Your task to perform on an android device: turn off notifications settings in the gmail app Image 0: 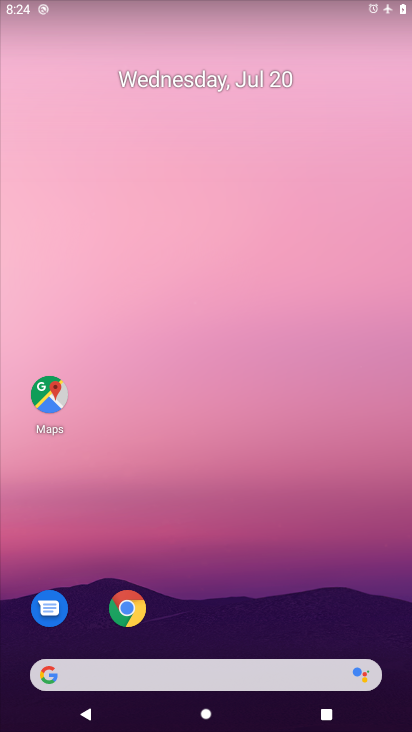
Step 0: drag from (198, 621) to (261, 117)
Your task to perform on an android device: turn off notifications settings in the gmail app Image 1: 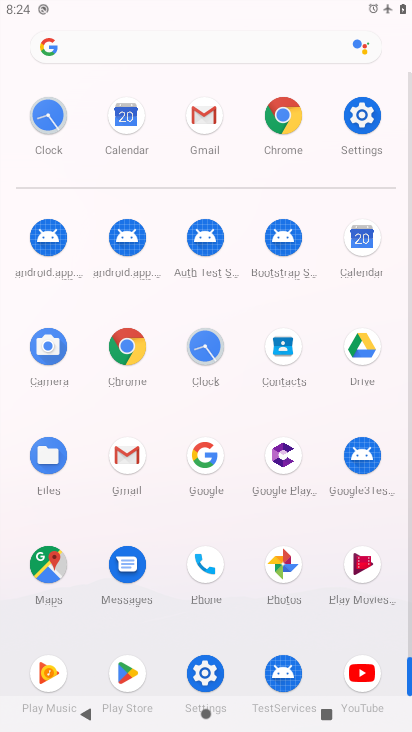
Step 1: click (135, 471)
Your task to perform on an android device: turn off notifications settings in the gmail app Image 2: 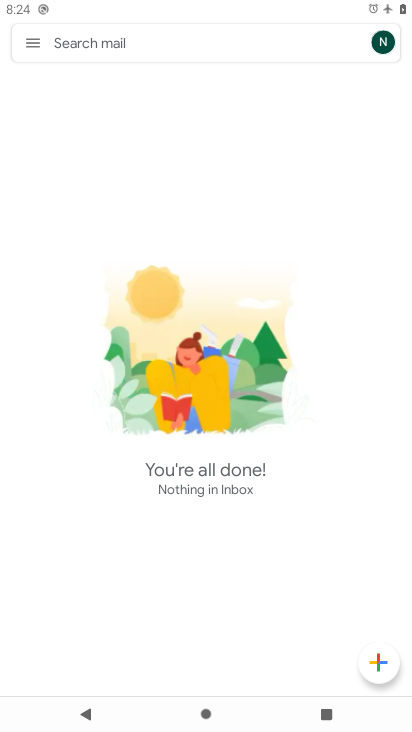
Step 2: click (24, 44)
Your task to perform on an android device: turn off notifications settings in the gmail app Image 3: 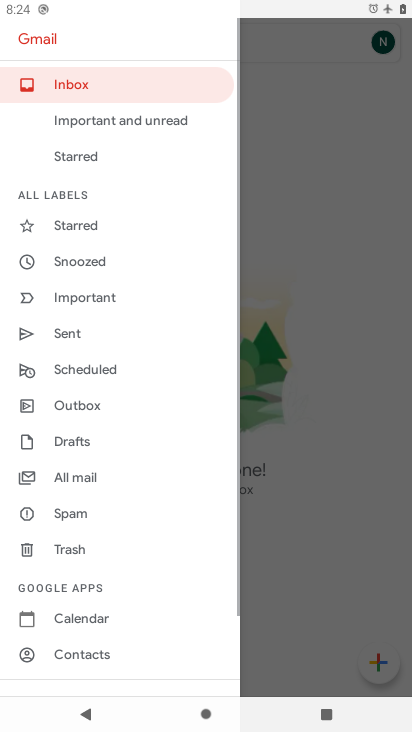
Step 3: drag from (96, 639) to (107, 214)
Your task to perform on an android device: turn off notifications settings in the gmail app Image 4: 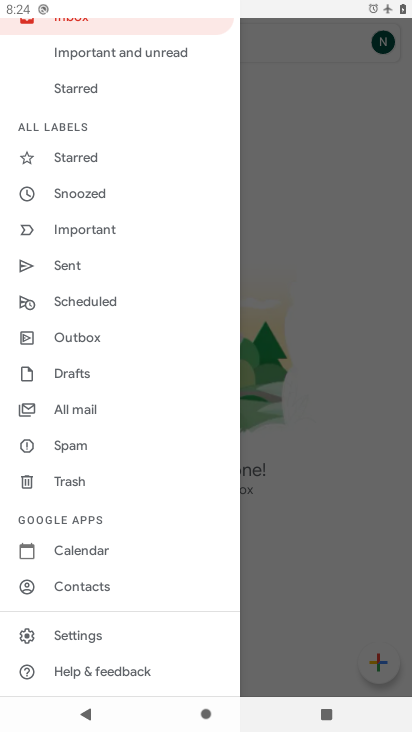
Step 4: click (77, 640)
Your task to perform on an android device: turn off notifications settings in the gmail app Image 5: 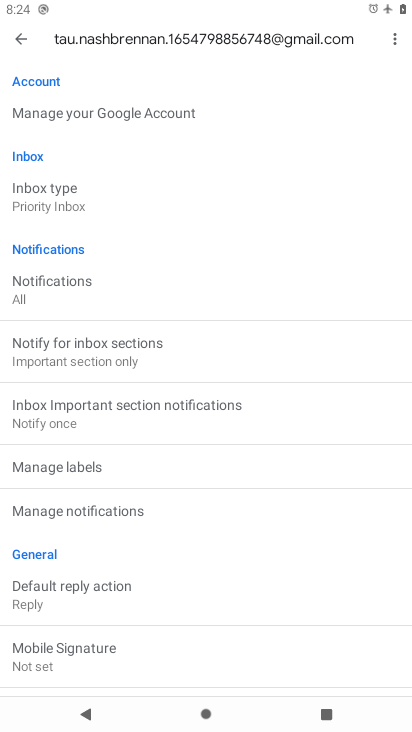
Step 5: click (22, 41)
Your task to perform on an android device: turn off notifications settings in the gmail app Image 6: 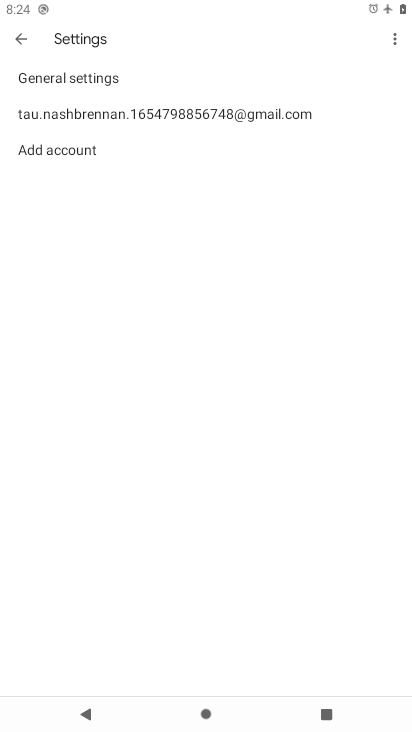
Step 6: click (87, 86)
Your task to perform on an android device: turn off notifications settings in the gmail app Image 7: 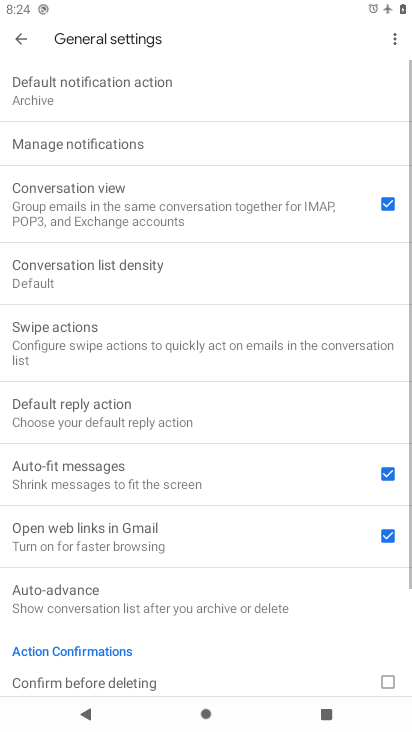
Step 7: click (123, 153)
Your task to perform on an android device: turn off notifications settings in the gmail app Image 8: 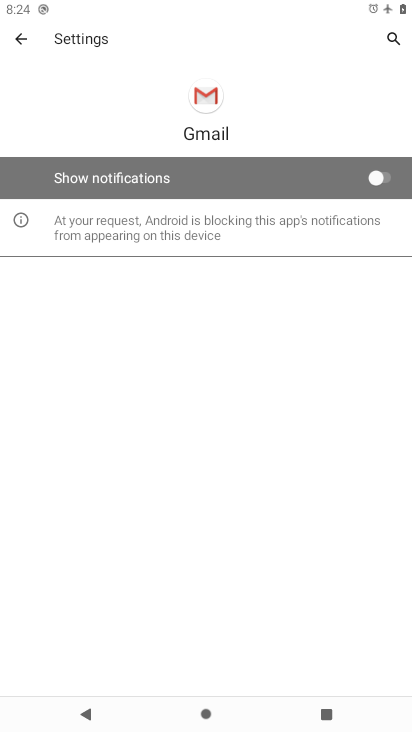
Step 8: task complete